Your task to perform on an android device: move a message to another label in the gmail app Image 0: 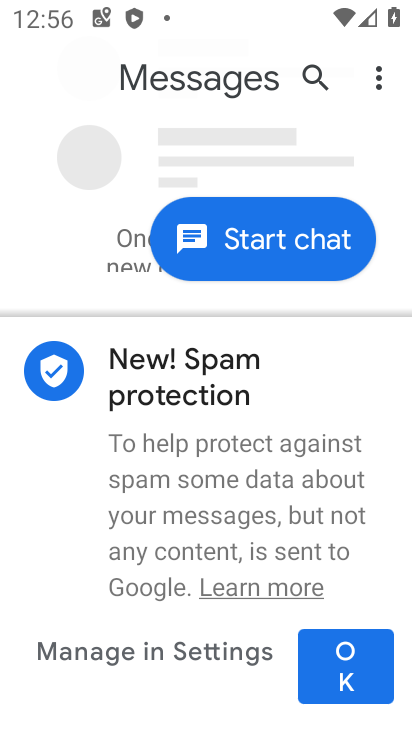
Step 0: press home button
Your task to perform on an android device: move a message to another label in the gmail app Image 1: 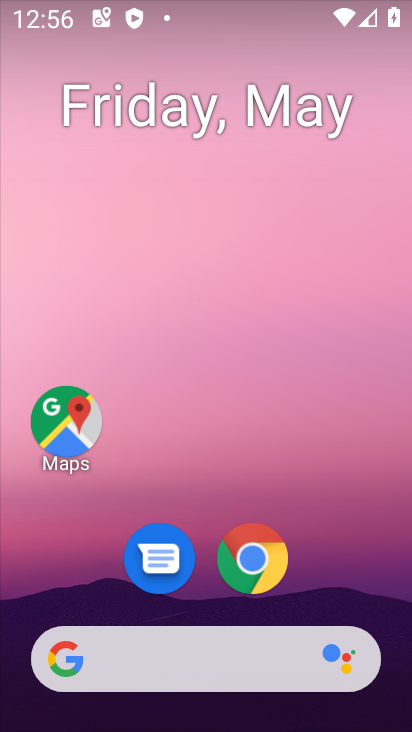
Step 1: drag from (339, 545) to (280, 138)
Your task to perform on an android device: move a message to another label in the gmail app Image 2: 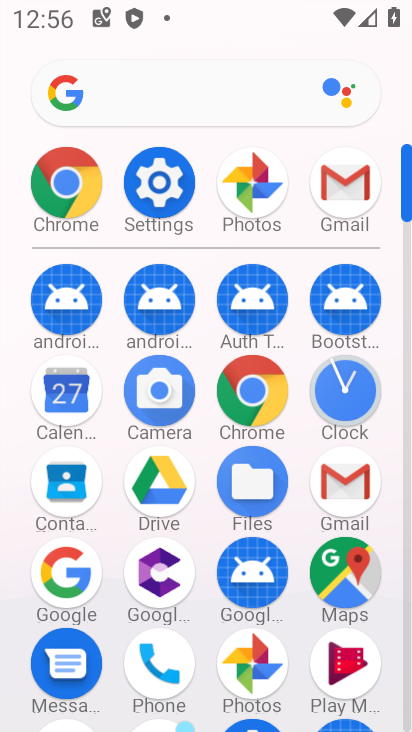
Step 2: click (339, 192)
Your task to perform on an android device: move a message to another label in the gmail app Image 3: 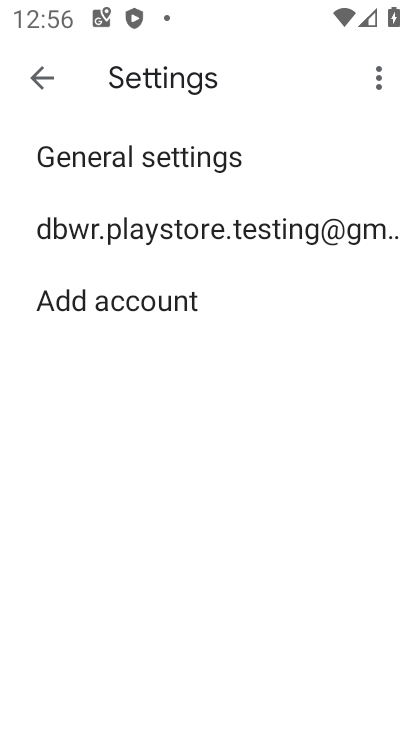
Step 3: click (33, 73)
Your task to perform on an android device: move a message to another label in the gmail app Image 4: 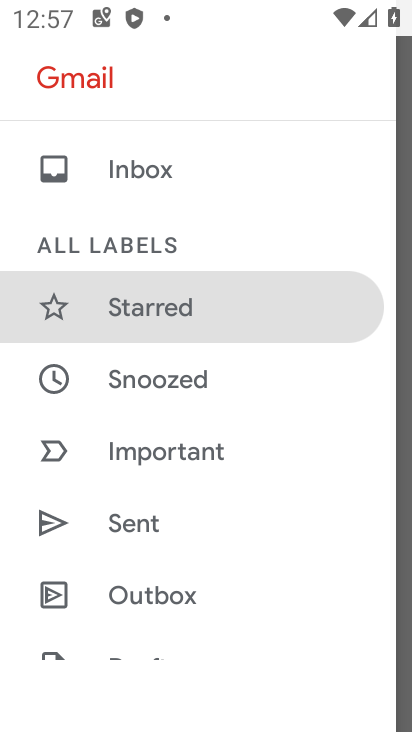
Step 4: drag from (190, 634) to (192, 224)
Your task to perform on an android device: move a message to another label in the gmail app Image 5: 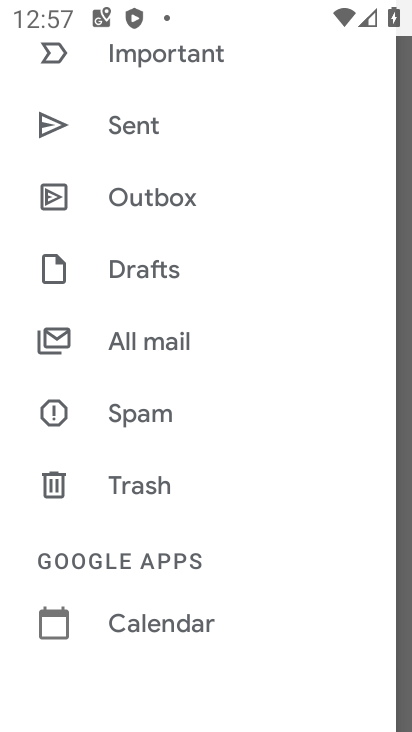
Step 5: click (188, 330)
Your task to perform on an android device: move a message to another label in the gmail app Image 6: 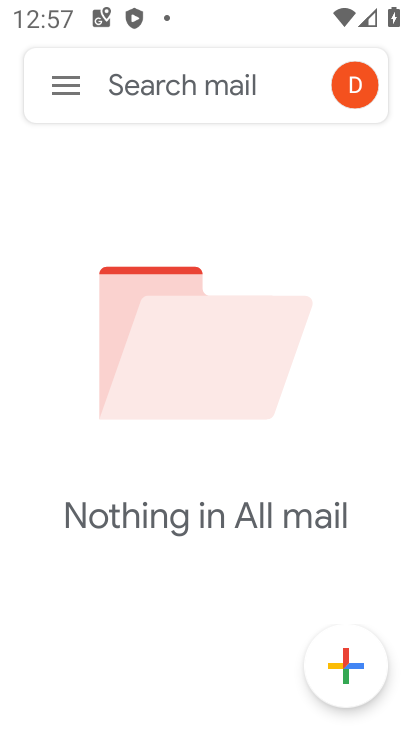
Step 6: task complete